Your task to perform on an android device: Open Reddit.com Image 0: 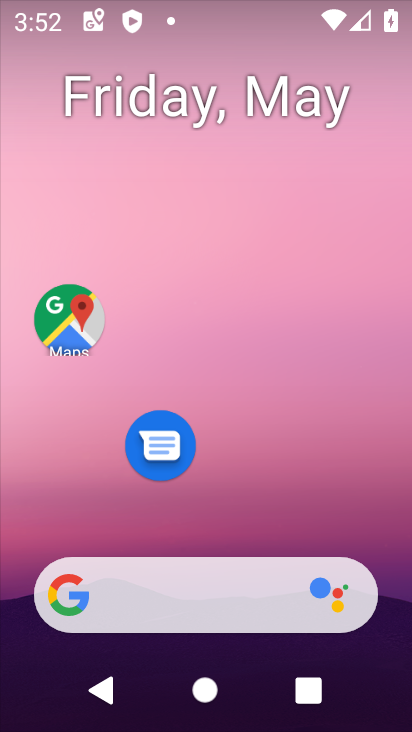
Step 0: drag from (201, 527) to (296, 44)
Your task to perform on an android device: Open Reddit.com Image 1: 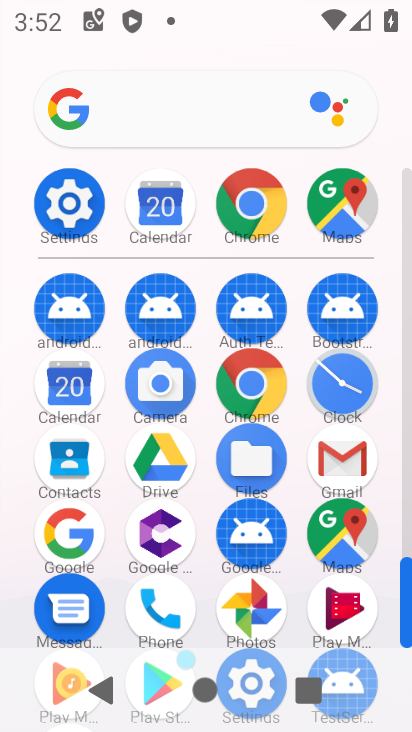
Step 1: click (265, 224)
Your task to perform on an android device: Open Reddit.com Image 2: 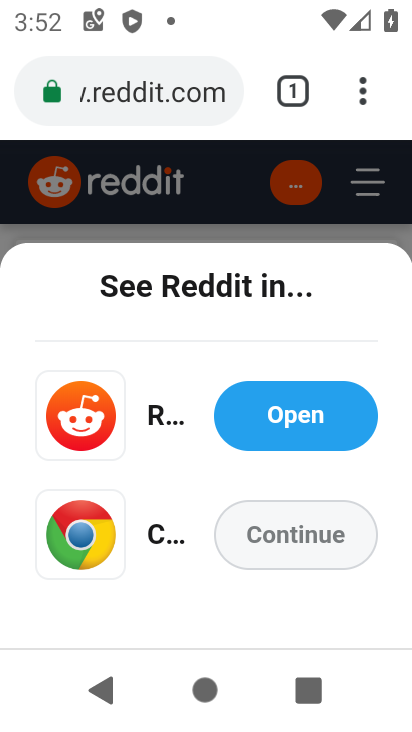
Step 2: click (308, 430)
Your task to perform on an android device: Open Reddit.com Image 3: 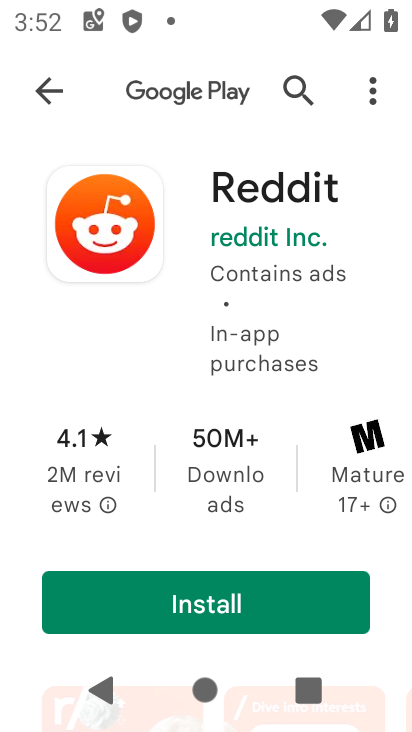
Step 3: press back button
Your task to perform on an android device: Open Reddit.com Image 4: 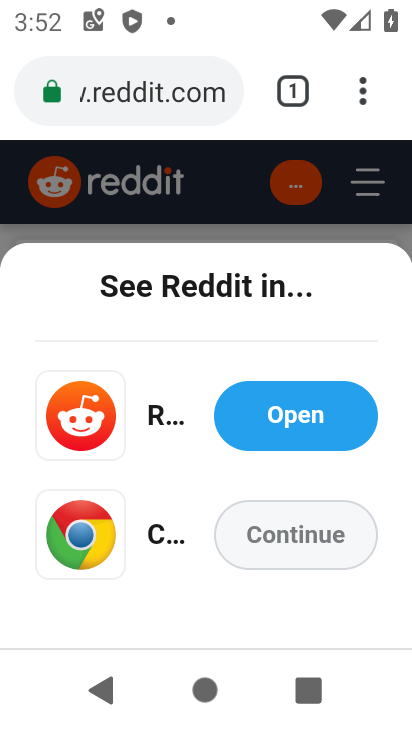
Step 4: click (282, 548)
Your task to perform on an android device: Open Reddit.com Image 5: 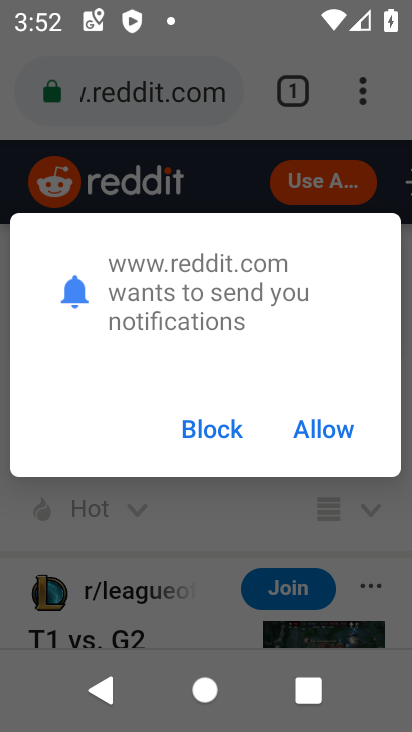
Step 5: task complete